Your task to perform on an android device: toggle data saver in the chrome app Image 0: 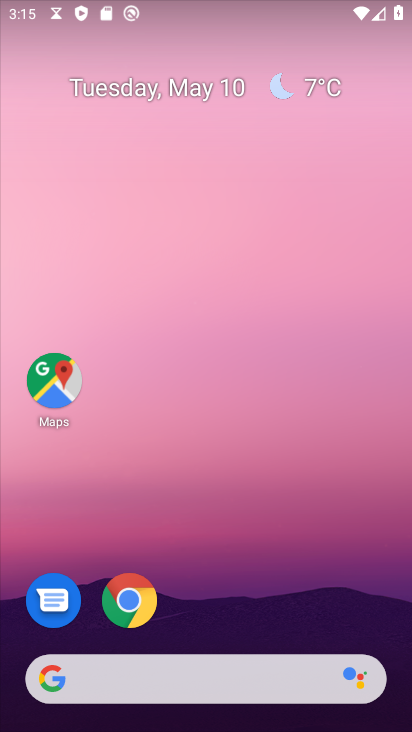
Step 0: click (107, 590)
Your task to perform on an android device: toggle data saver in the chrome app Image 1: 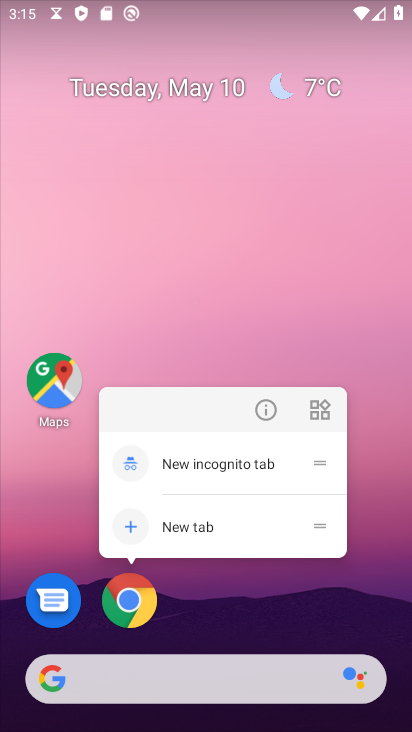
Step 1: click (106, 590)
Your task to perform on an android device: toggle data saver in the chrome app Image 2: 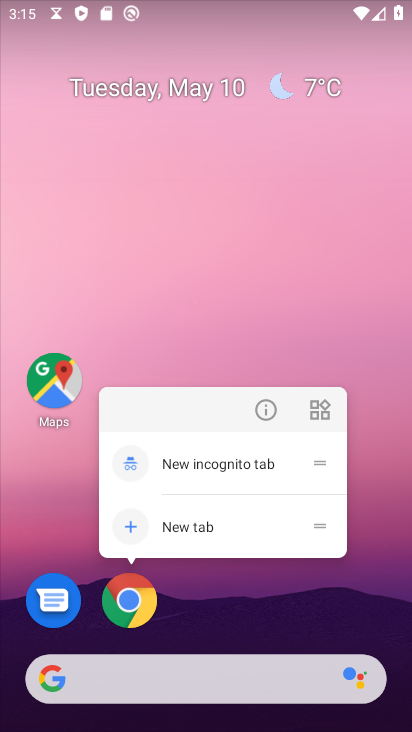
Step 2: click (107, 592)
Your task to perform on an android device: toggle data saver in the chrome app Image 3: 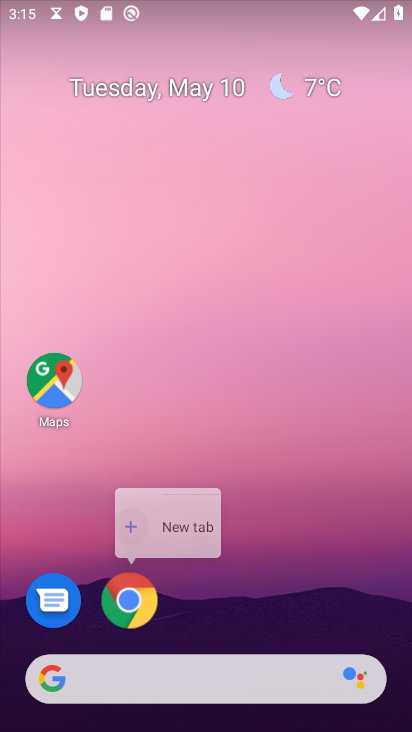
Step 3: click (107, 595)
Your task to perform on an android device: toggle data saver in the chrome app Image 4: 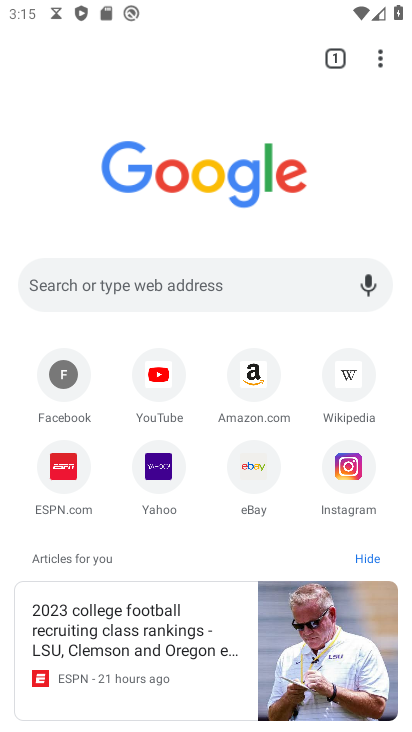
Step 4: click (384, 58)
Your task to perform on an android device: toggle data saver in the chrome app Image 5: 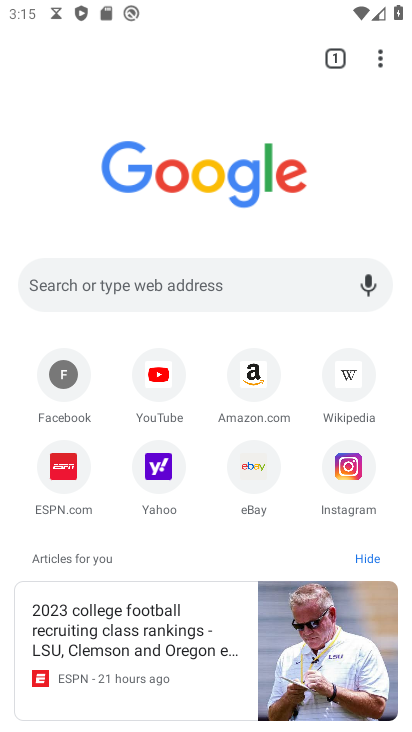
Step 5: click (378, 59)
Your task to perform on an android device: toggle data saver in the chrome app Image 6: 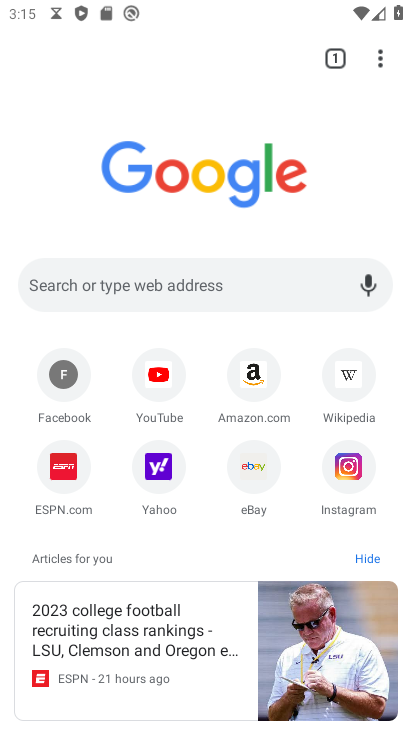
Step 6: click (373, 64)
Your task to perform on an android device: toggle data saver in the chrome app Image 7: 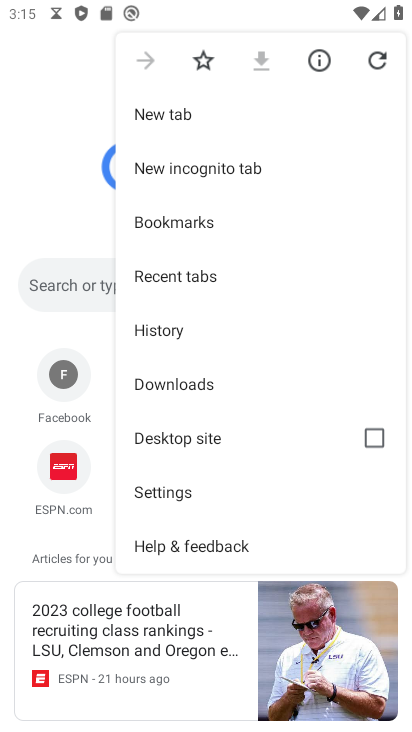
Step 7: click (139, 483)
Your task to perform on an android device: toggle data saver in the chrome app Image 8: 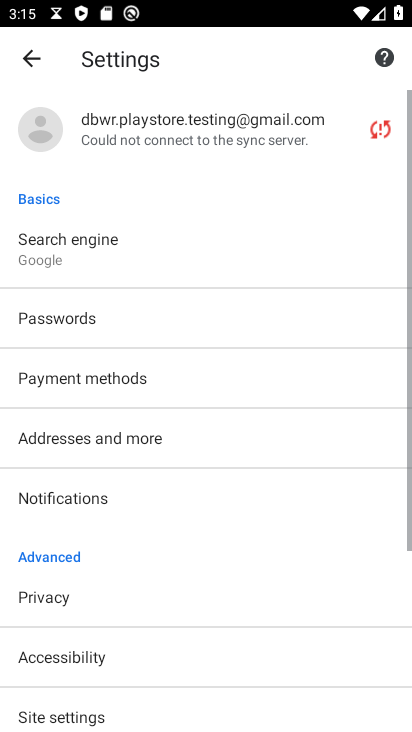
Step 8: drag from (103, 650) to (130, 314)
Your task to perform on an android device: toggle data saver in the chrome app Image 9: 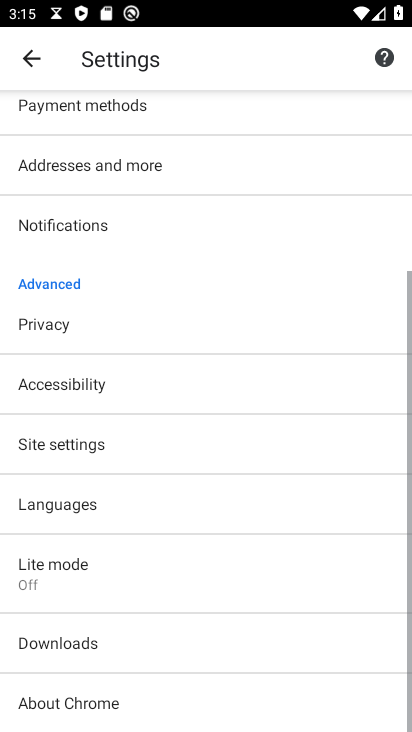
Step 9: click (110, 446)
Your task to perform on an android device: toggle data saver in the chrome app Image 10: 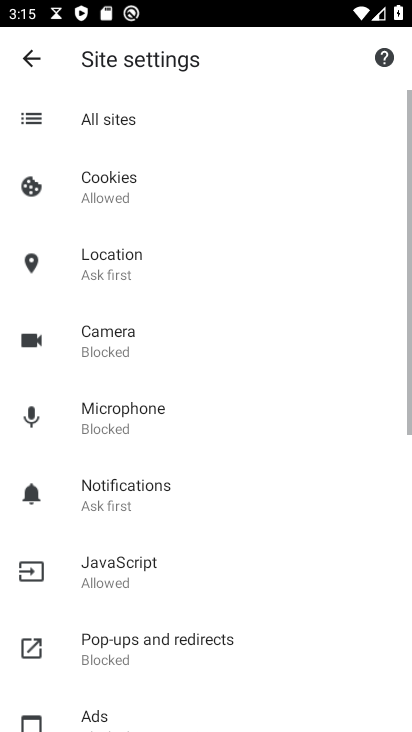
Step 10: task complete